Your task to perform on an android device: Open calendar and show me the second week of next month Image 0: 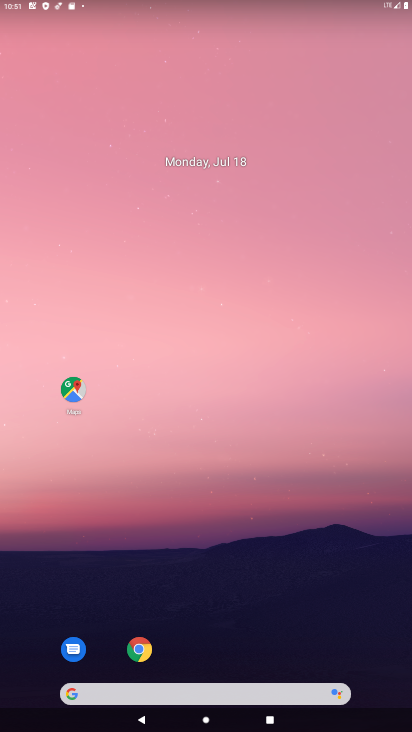
Step 0: drag from (243, 671) to (411, 112)
Your task to perform on an android device: Open calendar and show me the second week of next month Image 1: 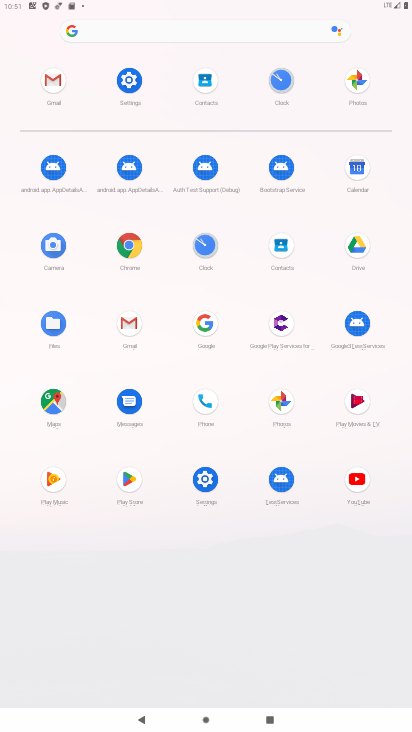
Step 1: click (358, 172)
Your task to perform on an android device: Open calendar and show me the second week of next month Image 2: 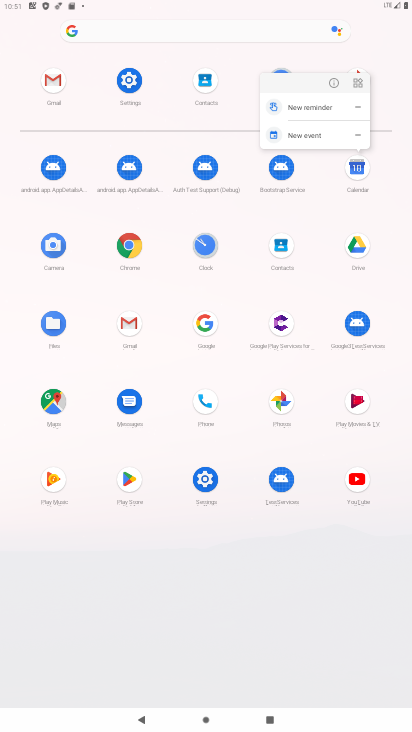
Step 2: click (358, 172)
Your task to perform on an android device: Open calendar and show me the second week of next month Image 3: 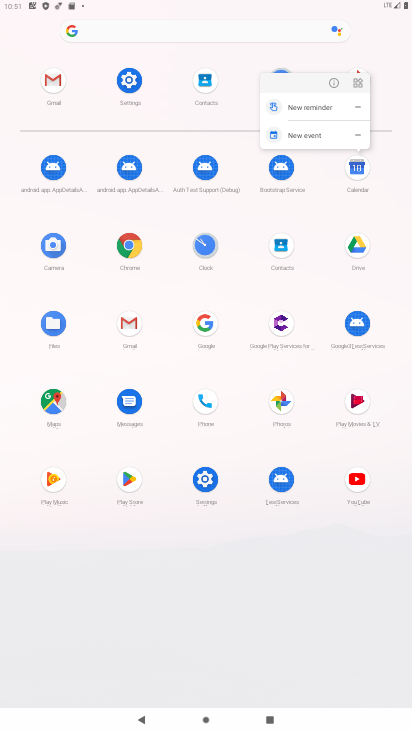
Step 3: click (358, 172)
Your task to perform on an android device: Open calendar and show me the second week of next month Image 4: 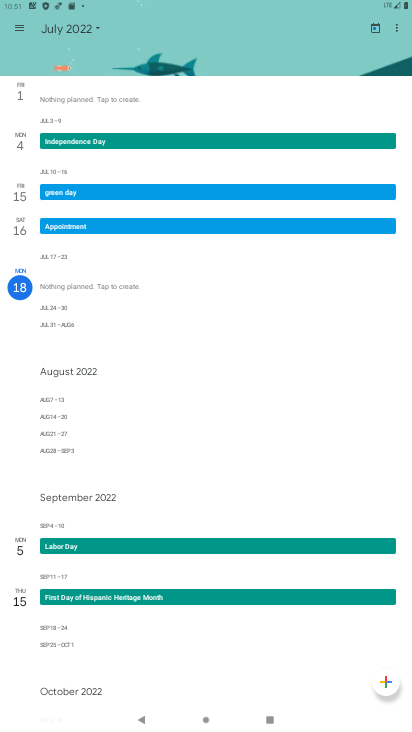
Step 4: drag from (149, 55) to (253, 661)
Your task to perform on an android device: Open calendar and show me the second week of next month Image 5: 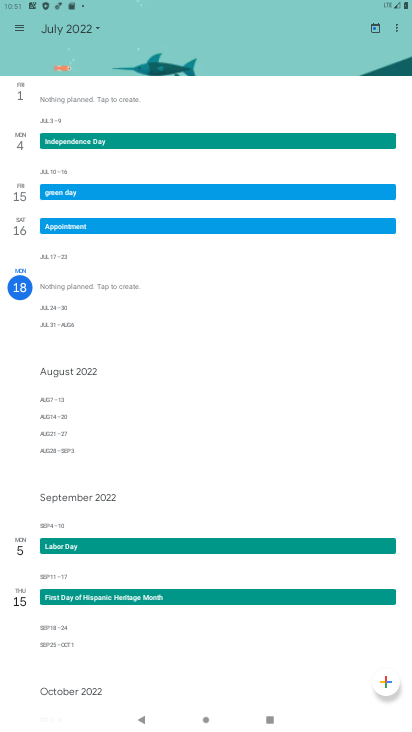
Step 5: drag from (260, 39) to (299, 717)
Your task to perform on an android device: Open calendar and show me the second week of next month Image 6: 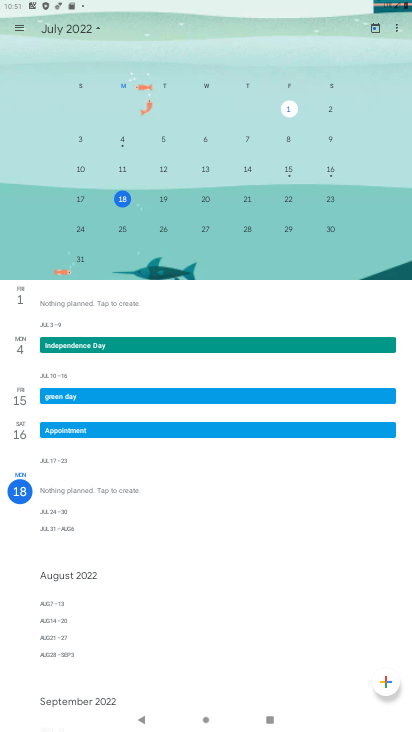
Step 6: drag from (378, 194) to (33, 174)
Your task to perform on an android device: Open calendar and show me the second week of next month Image 7: 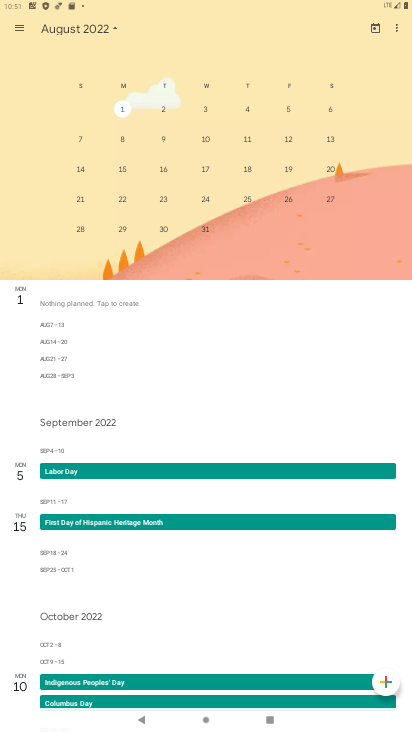
Step 7: click (78, 140)
Your task to perform on an android device: Open calendar and show me the second week of next month Image 8: 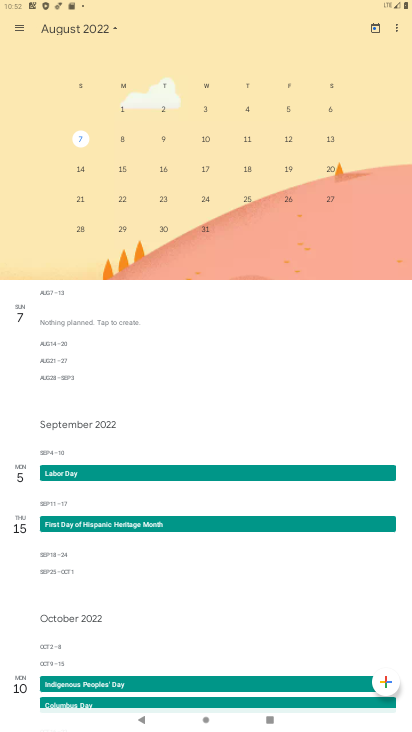
Step 8: task complete